Your task to perform on an android device: open chrome privacy settings Image 0: 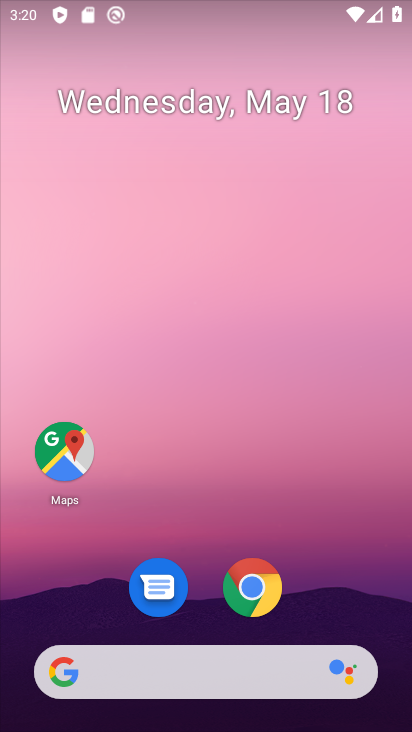
Step 0: click (252, 592)
Your task to perform on an android device: open chrome privacy settings Image 1: 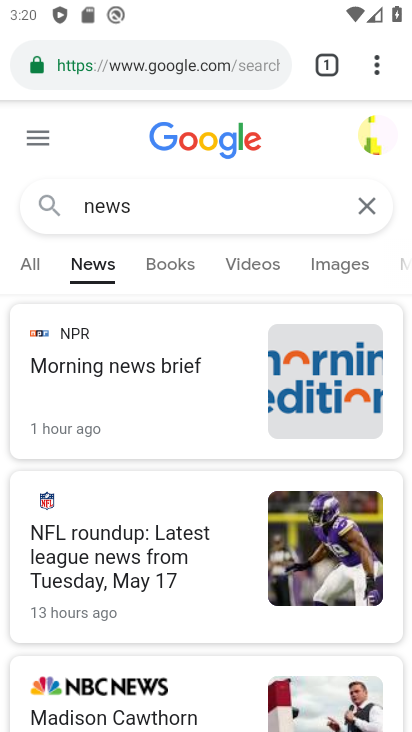
Step 1: drag from (388, 73) to (233, 634)
Your task to perform on an android device: open chrome privacy settings Image 2: 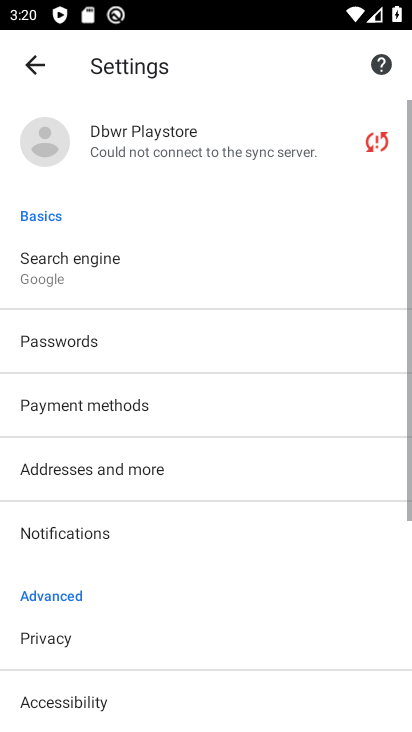
Step 2: drag from (235, 632) to (294, 156)
Your task to perform on an android device: open chrome privacy settings Image 3: 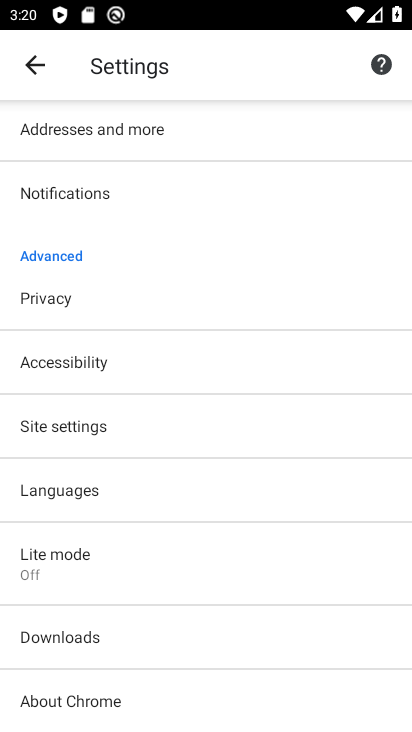
Step 3: drag from (269, 621) to (304, 294)
Your task to perform on an android device: open chrome privacy settings Image 4: 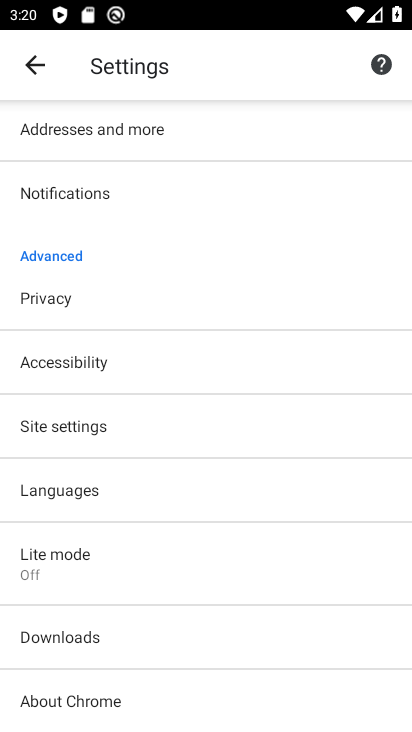
Step 4: drag from (191, 562) to (261, 233)
Your task to perform on an android device: open chrome privacy settings Image 5: 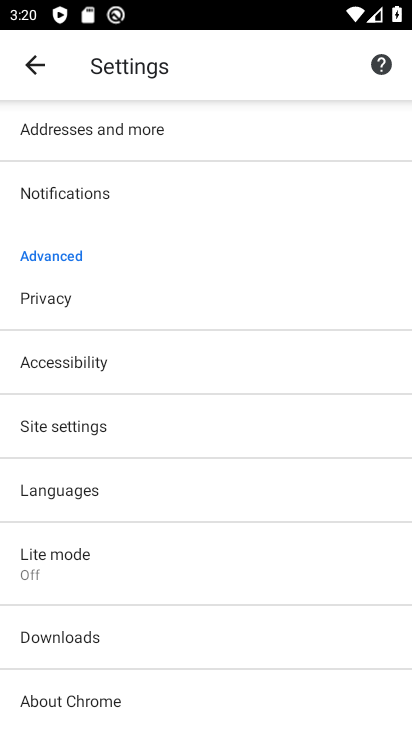
Step 5: click (53, 296)
Your task to perform on an android device: open chrome privacy settings Image 6: 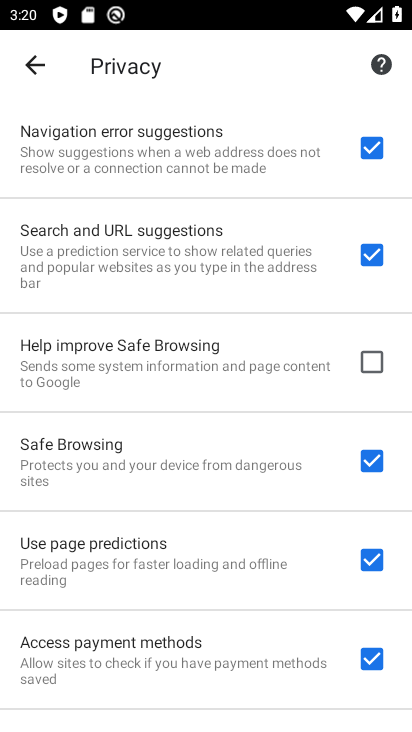
Step 6: task complete